Your task to perform on an android device: turn on airplane mode Image 0: 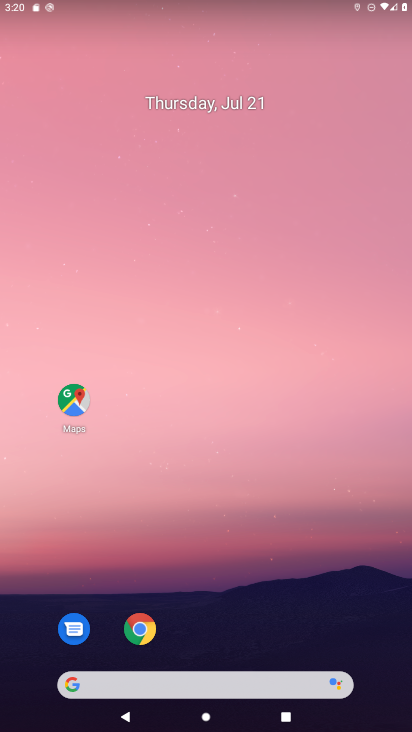
Step 0: drag from (204, 651) to (215, 71)
Your task to perform on an android device: turn on airplane mode Image 1: 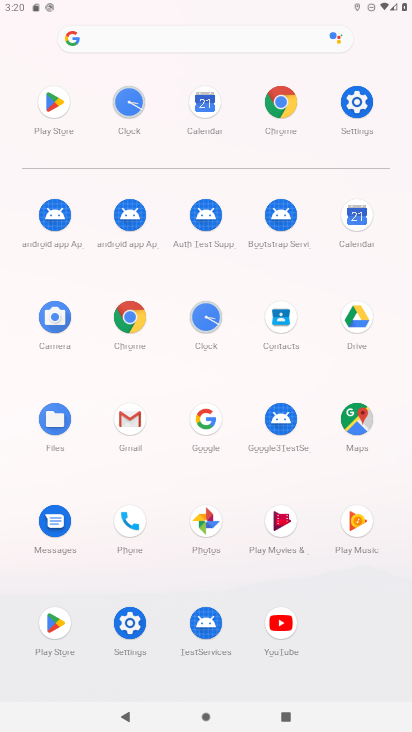
Step 1: click (137, 634)
Your task to perform on an android device: turn on airplane mode Image 2: 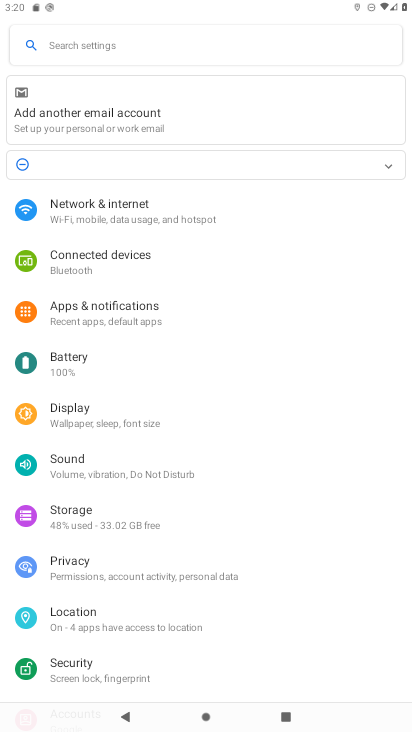
Step 2: click (103, 206)
Your task to perform on an android device: turn on airplane mode Image 3: 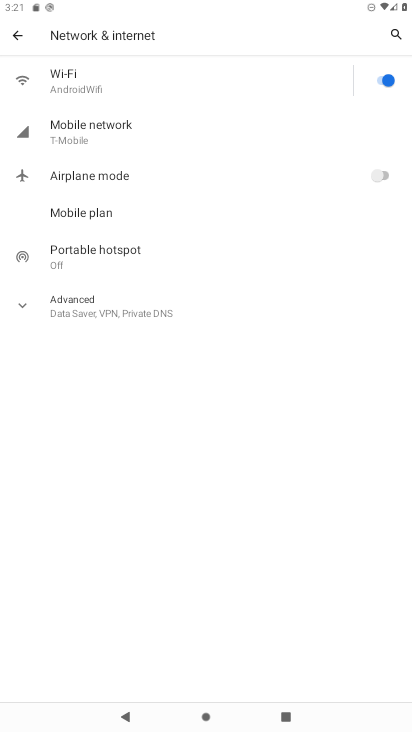
Step 3: click (360, 177)
Your task to perform on an android device: turn on airplane mode Image 4: 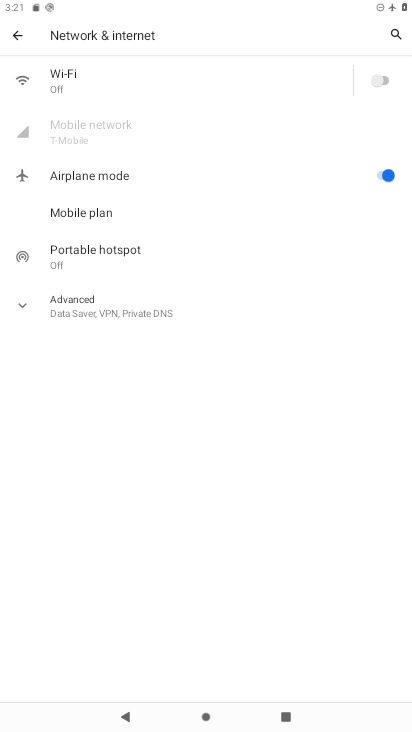
Step 4: task complete